Your task to perform on an android device: turn on the 24-hour format for clock Image 0: 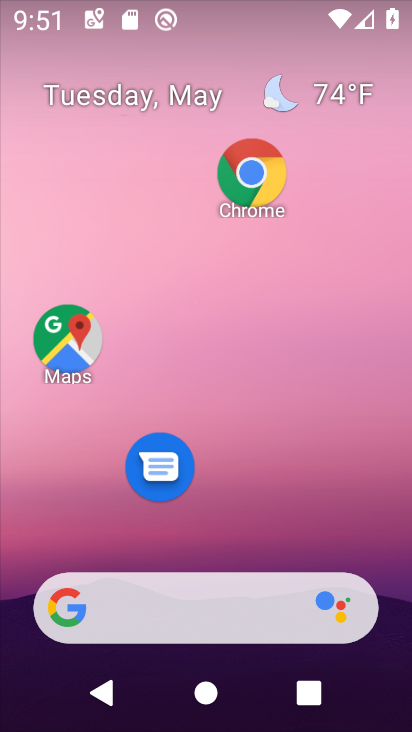
Step 0: drag from (322, 488) to (401, 126)
Your task to perform on an android device: turn on the 24-hour format for clock Image 1: 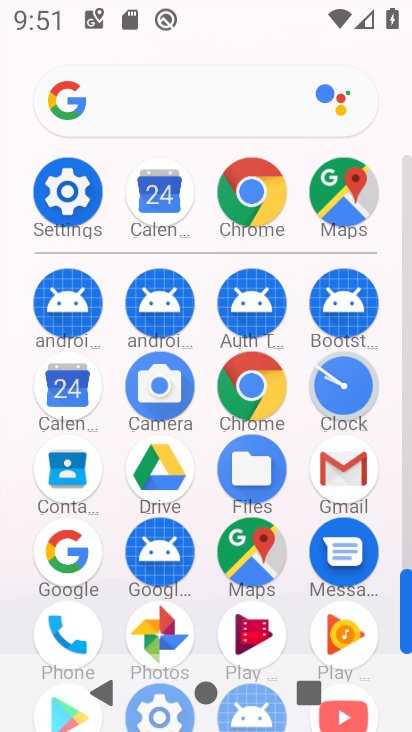
Step 1: click (359, 406)
Your task to perform on an android device: turn on the 24-hour format for clock Image 2: 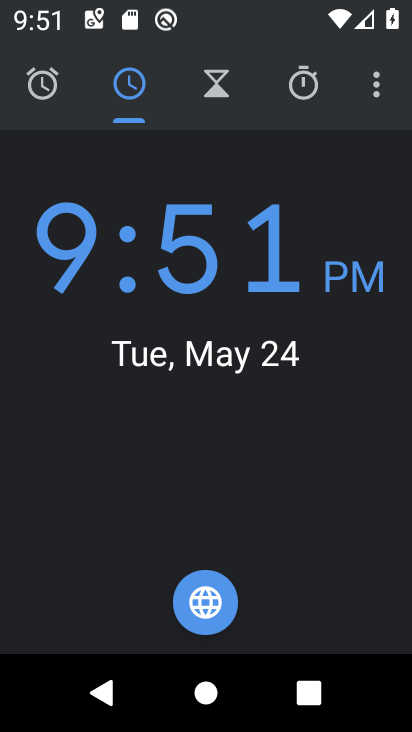
Step 2: drag from (389, 91) to (209, 166)
Your task to perform on an android device: turn on the 24-hour format for clock Image 3: 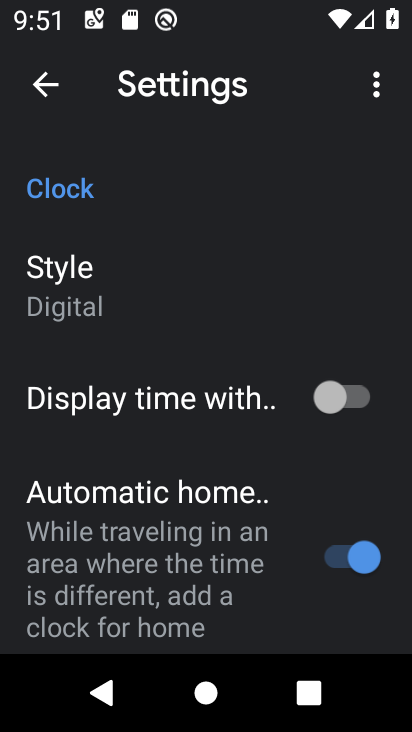
Step 3: drag from (259, 576) to (257, 310)
Your task to perform on an android device: turn on the 24-hour format for clock Image 4: 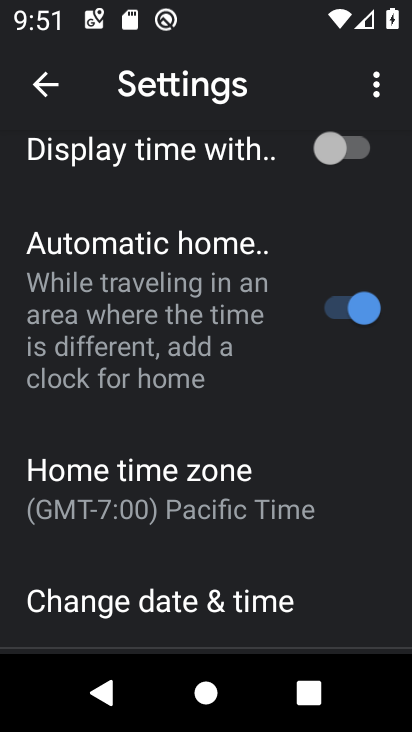
Step 4: drag from (233, 499) to (237, 323)
Your task to perform on an android device: turn on the 24-hour format for clock Image 5: 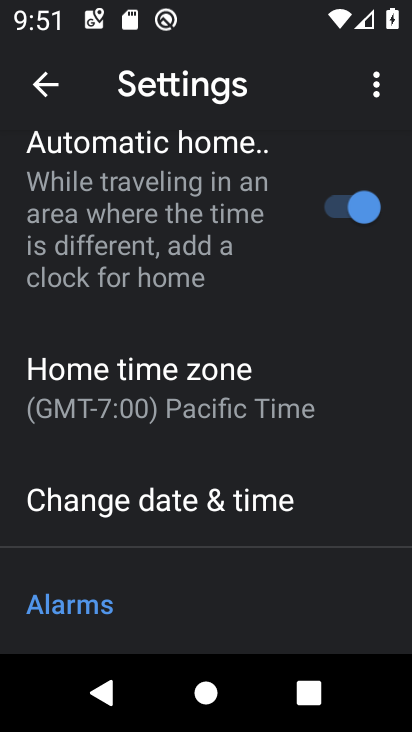
Step 5: click (238, 482)
Your task to perform on an android device: turn on the 24-hour format for clock Image 6: 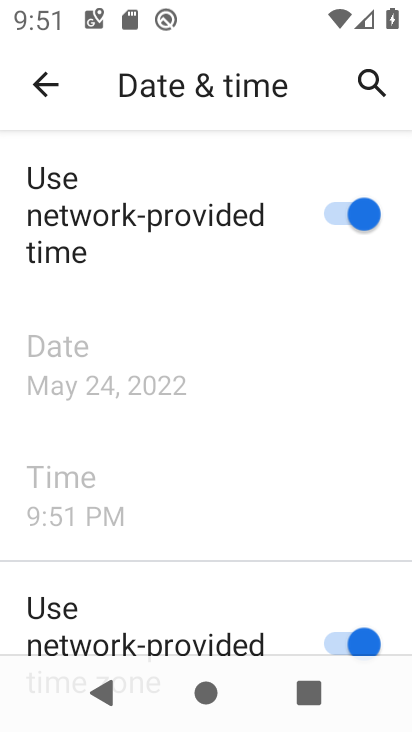
Step 6: drag from (236, 553) to (264, 247)
Your task to perform on an android device: turn on the 24-hour format for clock Image 7: 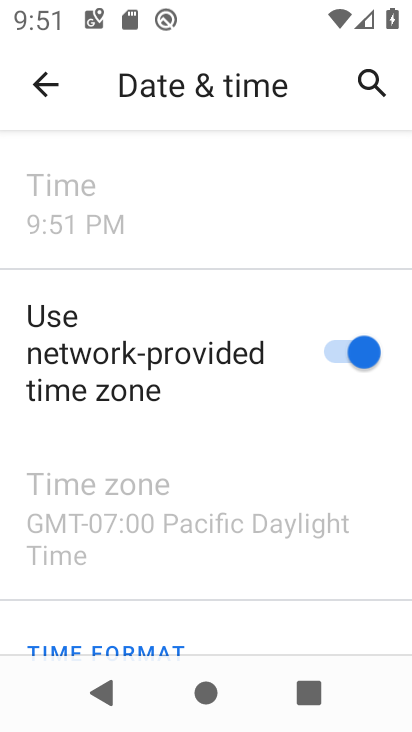
Step 7: drag from (241, 563) to (264, 217)
Your task to perform on an android device: turn on the 24-hour format for clock Image 8: 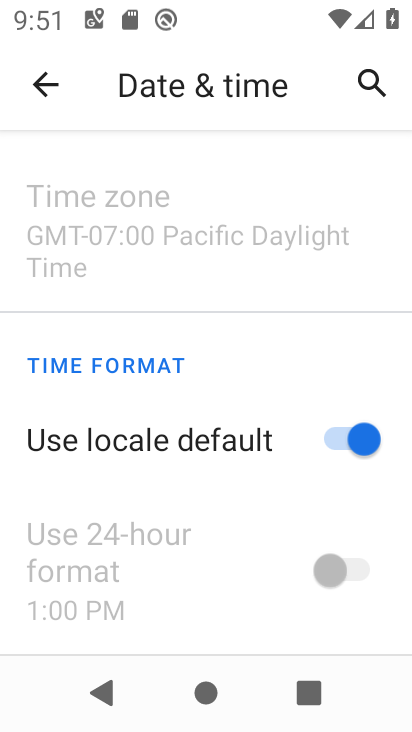
Step 8: drag from (210, 576) to (232, 238)
Your task to perform on an android device: turn on the 24-hour format for clock Image 9: 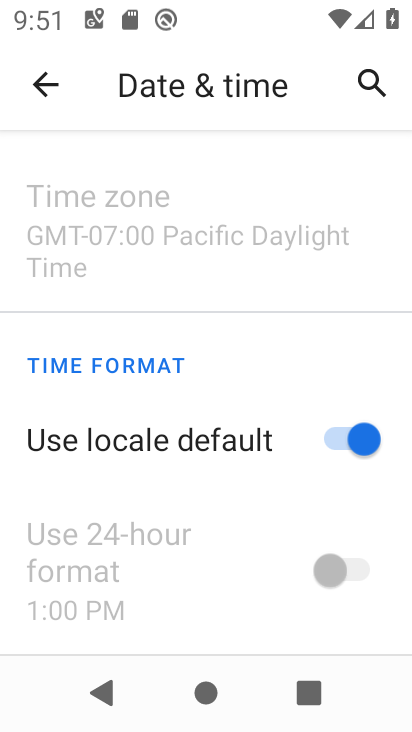
Step 9: click (333, 440)
Your task to perform on an android device: turn on the 24-hour format for clock Image 10: 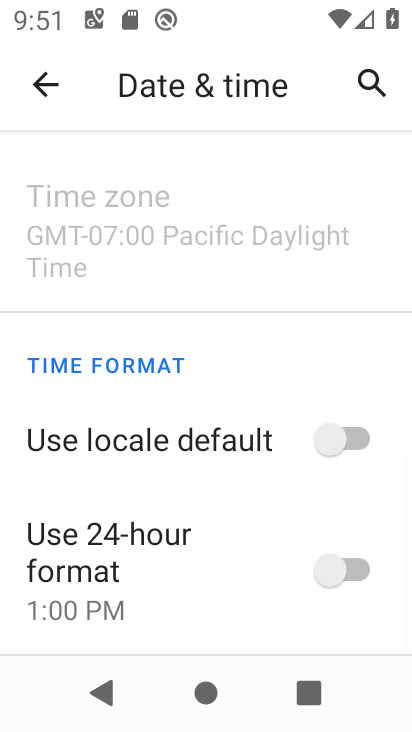
Step 10: click (359, 575)
Your task to perform on an android device: turn on the 24-hour format for clock Image 11: 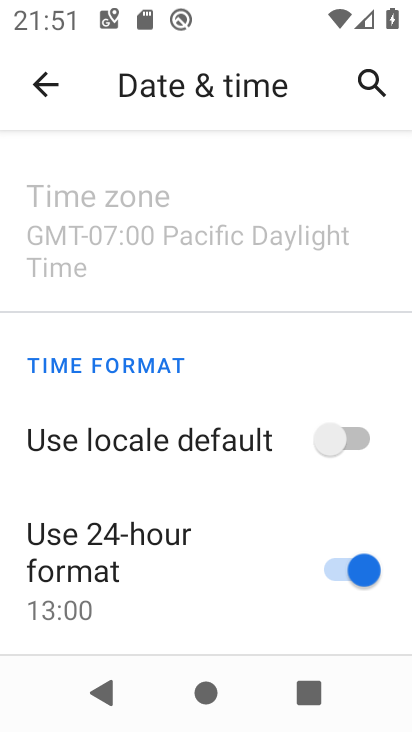
Step 11: task complete